Your task to perform on an android device: turn off javascript in the chrome app Image 0: 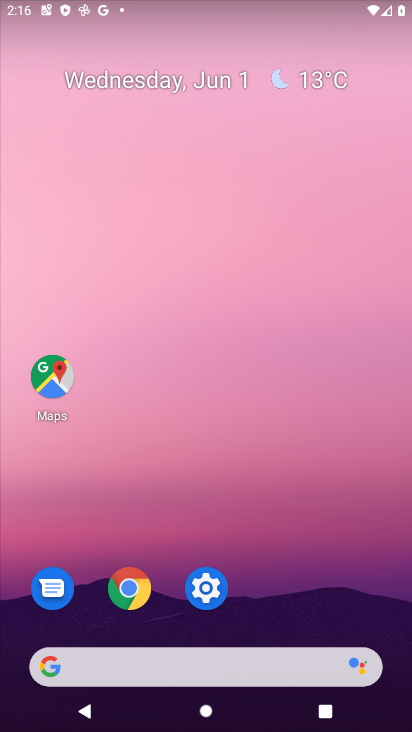
Step 0: drag from (285, 691) to (304, 266)
Your task to perform on an android device: turn off javascript in the chrome app Image 1: 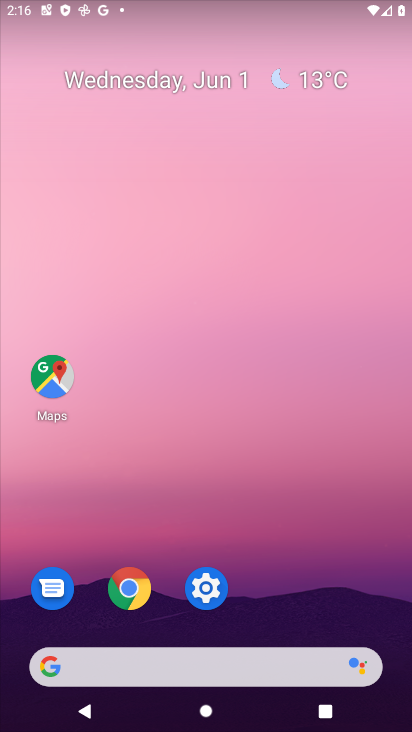
Step 1: click (140, 574)
Your task to perform on an android device: turn off javascript in the chrome app Image 2: 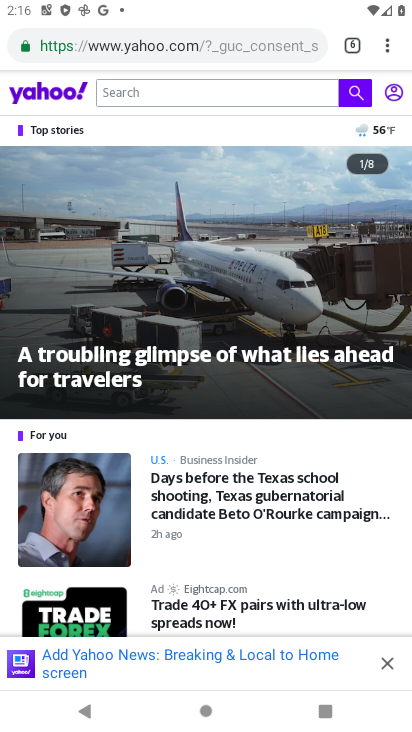
Step 2: click (381, 54)
Your task to perform on an android device: turn off javascript in the chrome app Image 3: 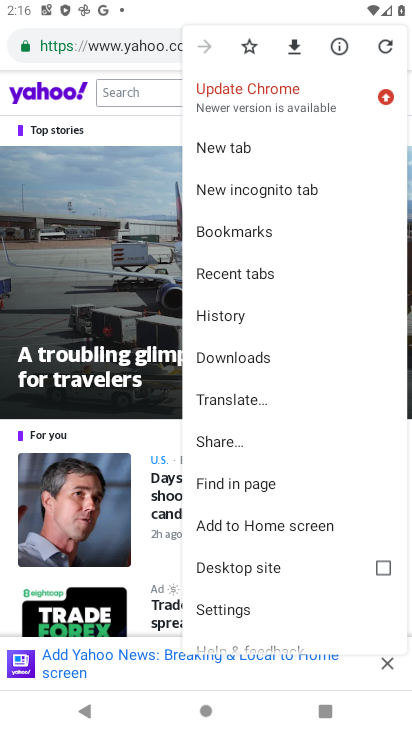
Step 3: click (234, 602)
Your task to perform on an android device: turn off javascript in the chrome app Image 4: 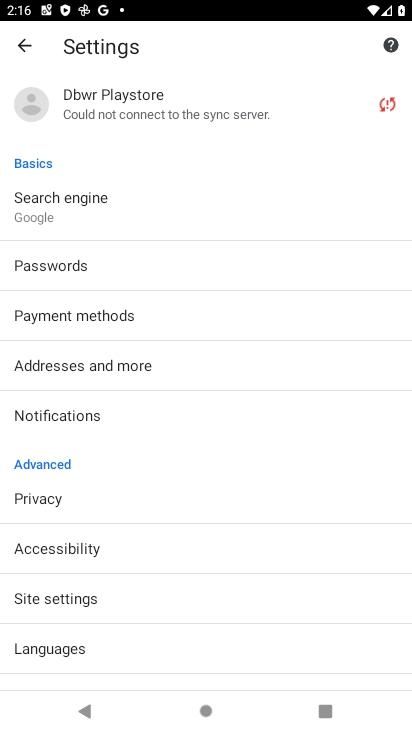
Step 4: click (86, 600)
Your task to perform on an android device: turn off javascript in the chrome app Image 5: 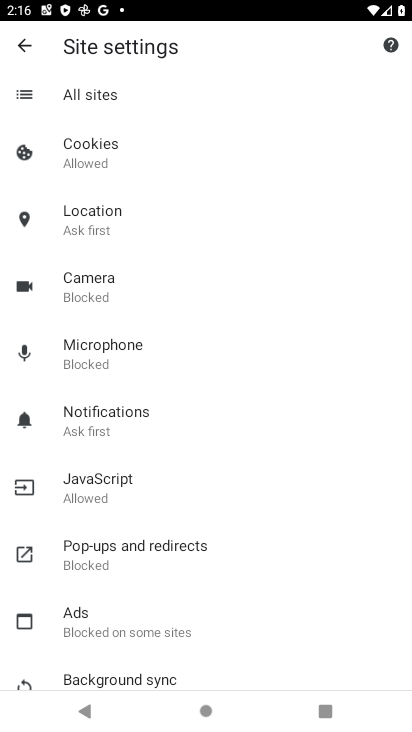
Step 5: click (114, 478)
Your task to perform on an android device: turn off javascript in the chrome app Image 6: 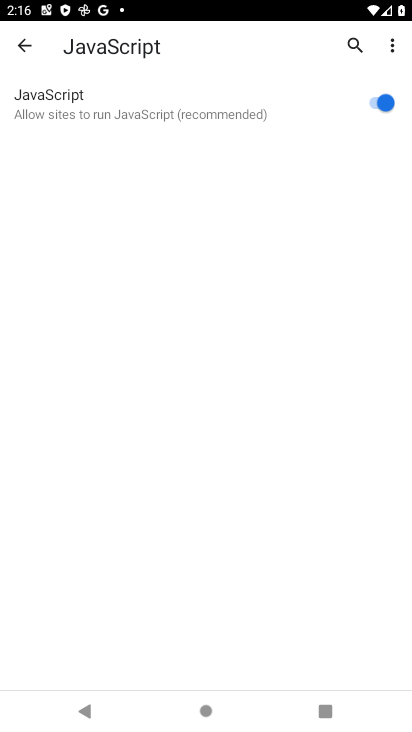
Step 6: click (378, 103)
Your task to perform on an android device: turn off javascript in the chrome app Image 7: 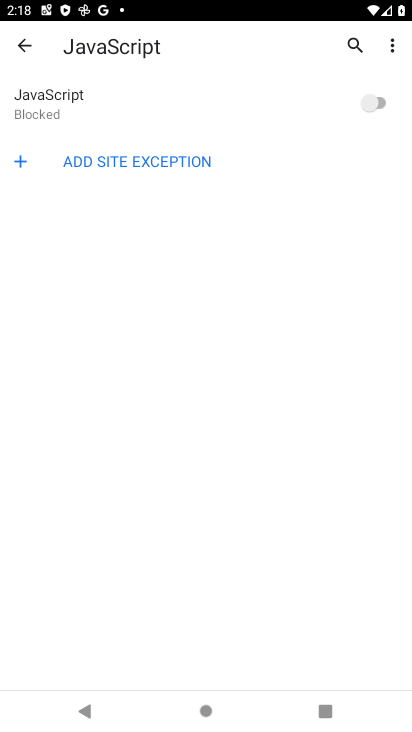
Step 7: task complete